Your task to perform on an android device: refresh tabs in the chrome app Image 0: 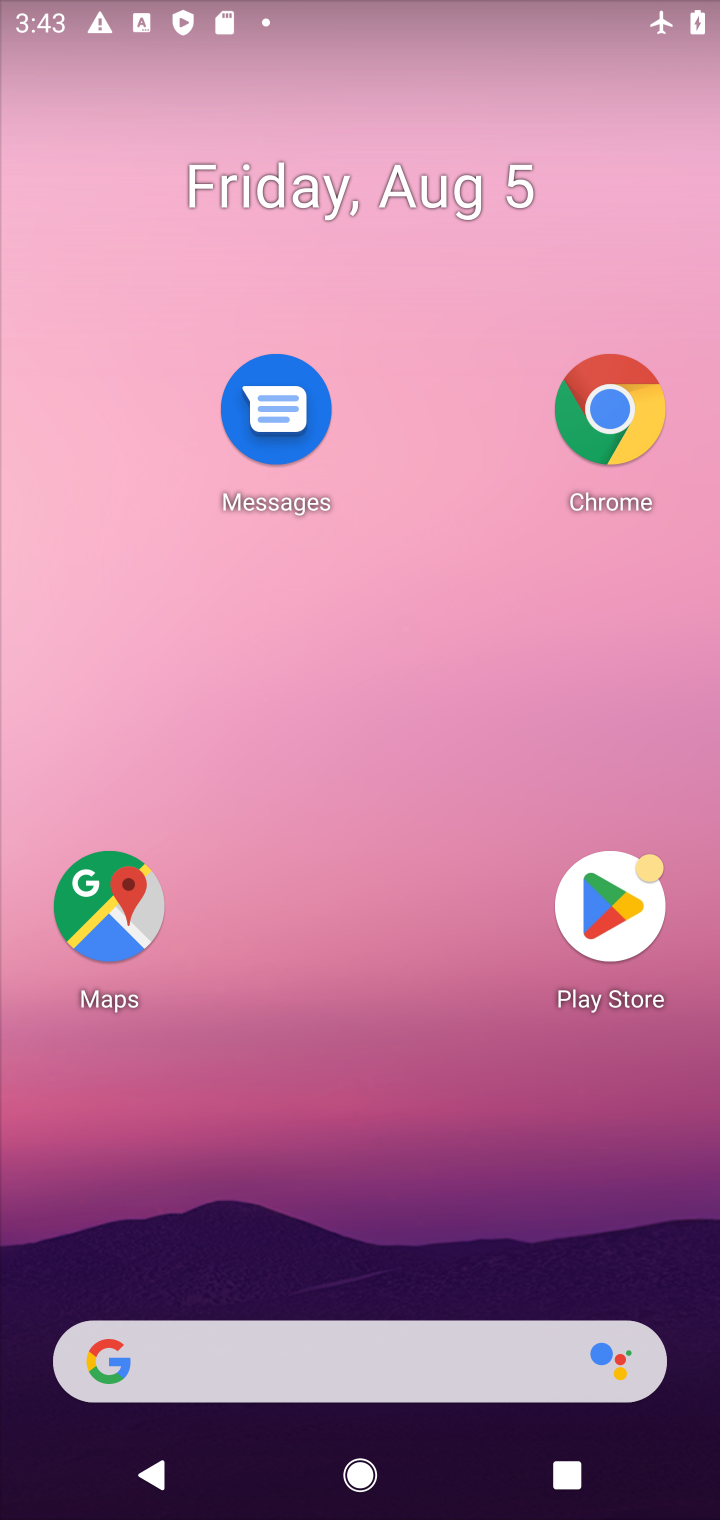
Step 0: click (583, 474)
Your task to perform on an android device: refresh tabs in the chrome app Image 1: 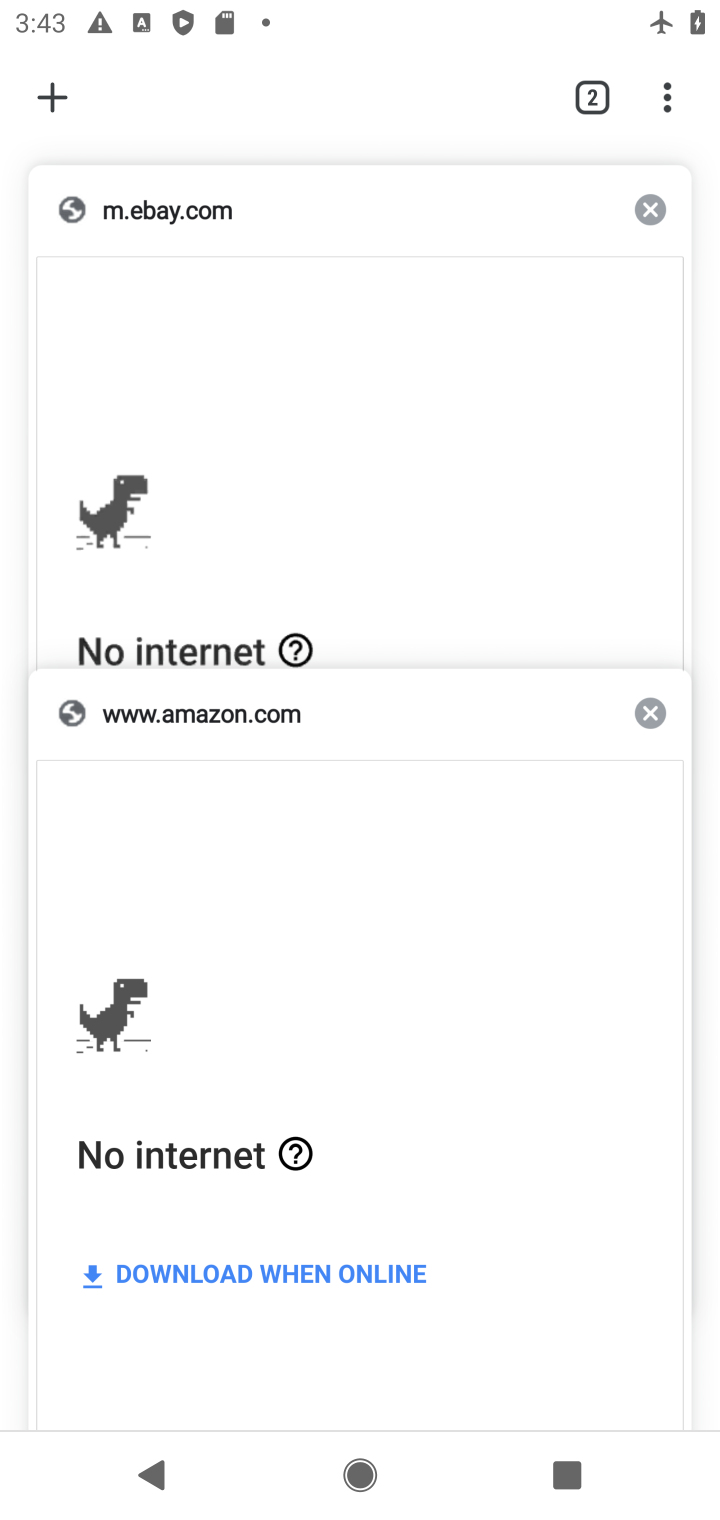
Step 1: click (670, 115)
Your task to perform on an android device: refresh tabs in the chrome app Image 2: 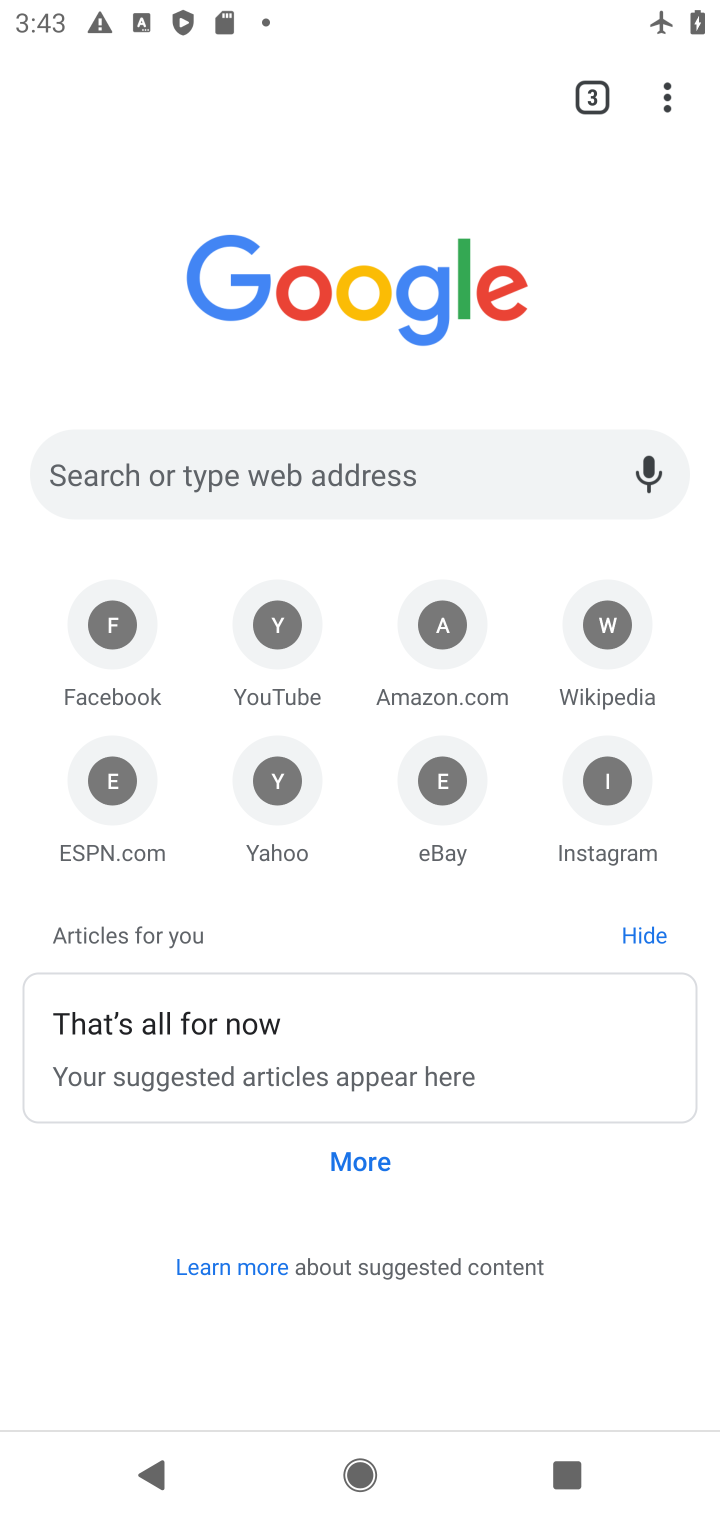
Step 2: click (670, 115)
Your task to perform on an android device: refresh tabs in the chrome app Image 3: 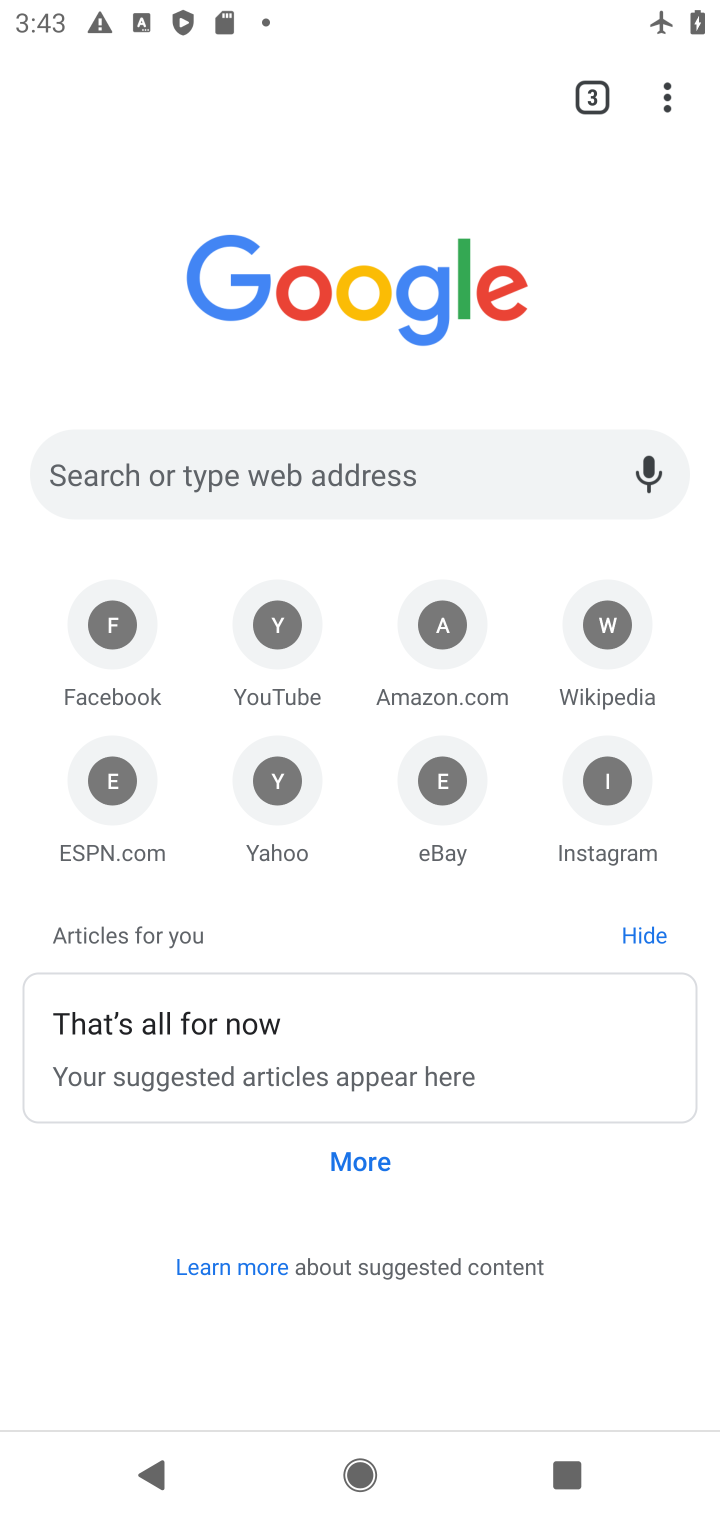
Step 3: click (659, 98)
Your task to perform on an android device: refresh tabs in the chrome app Image 4: 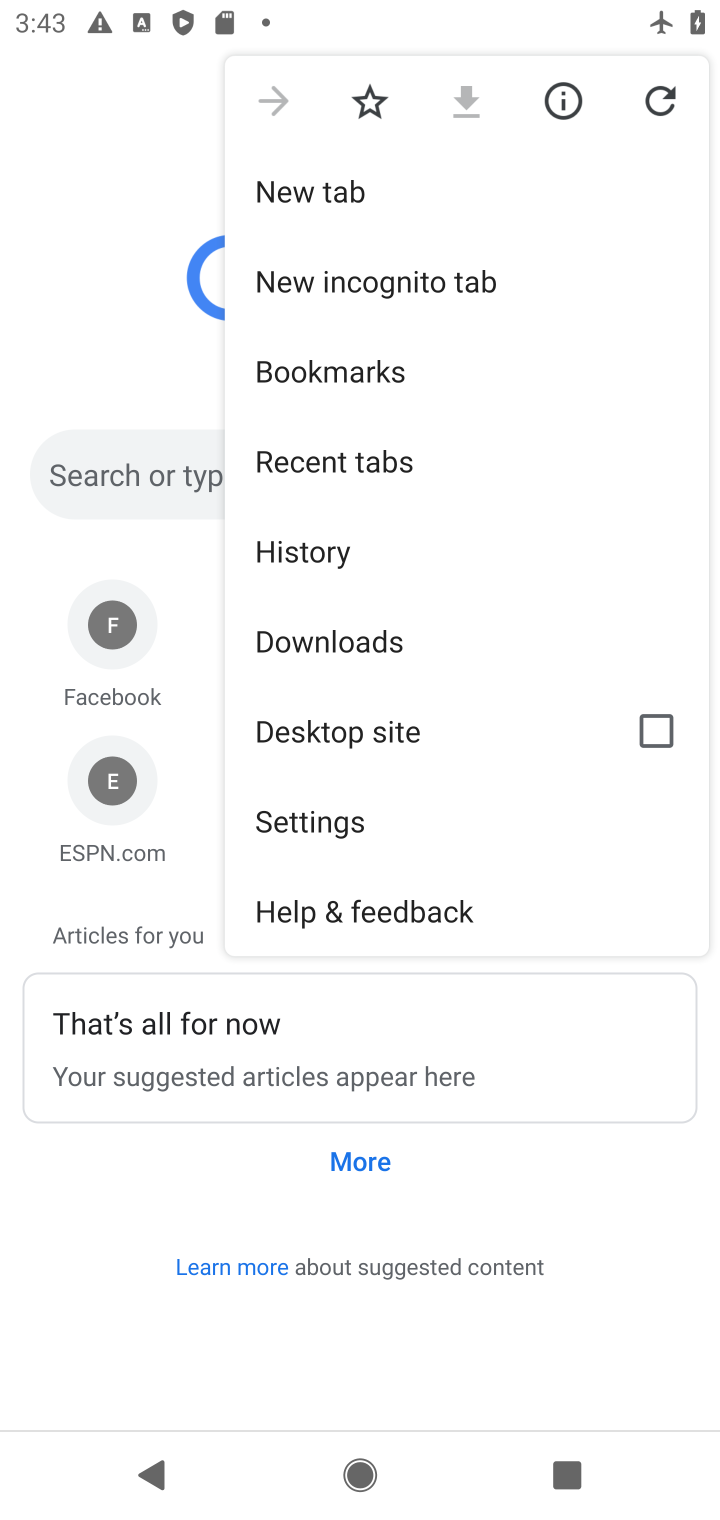
Step 4: click (664, 121)
Your task to perform on an android device: refresh tabs in the chrome app Image 5: 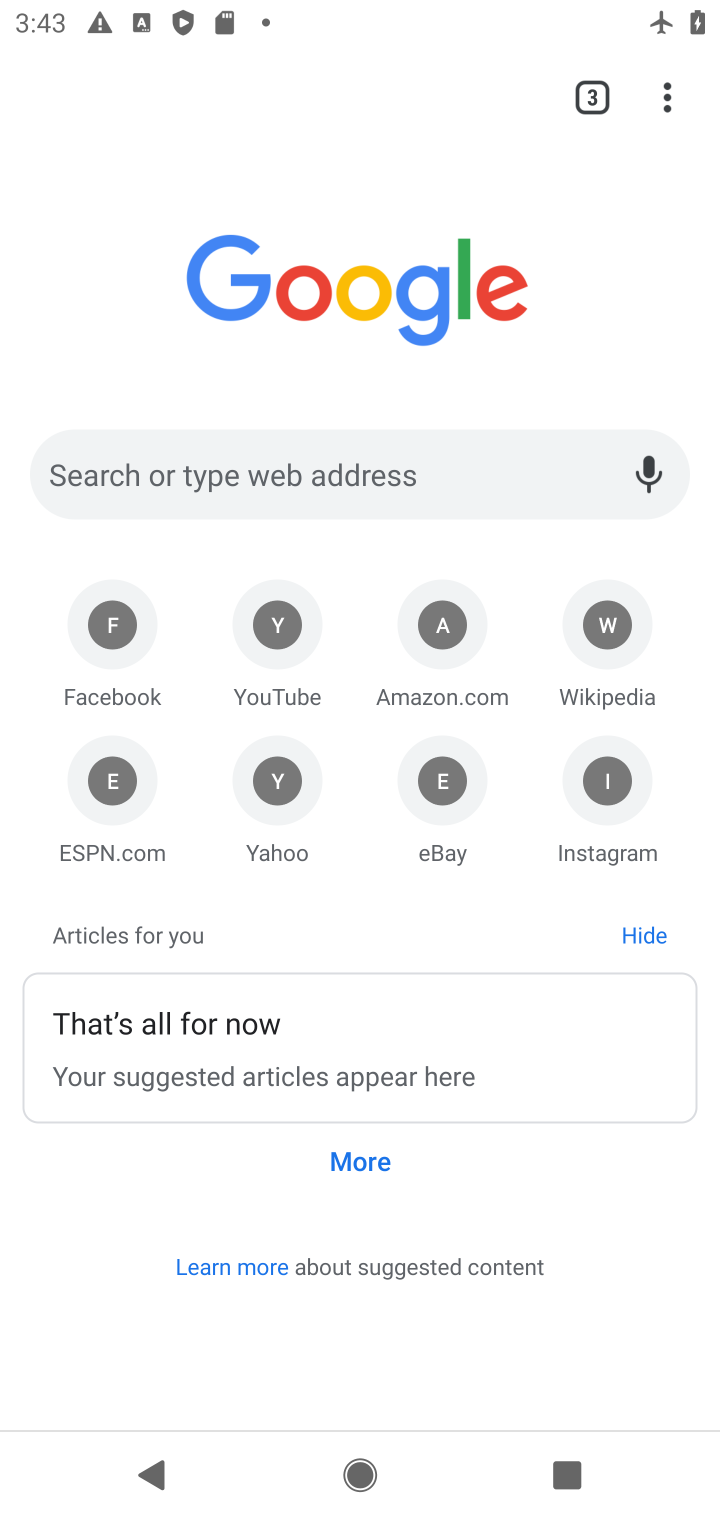
Step 5: task complete